Your task to perform on an android device: Open the phone app and click the voicemail tab. Image 0: 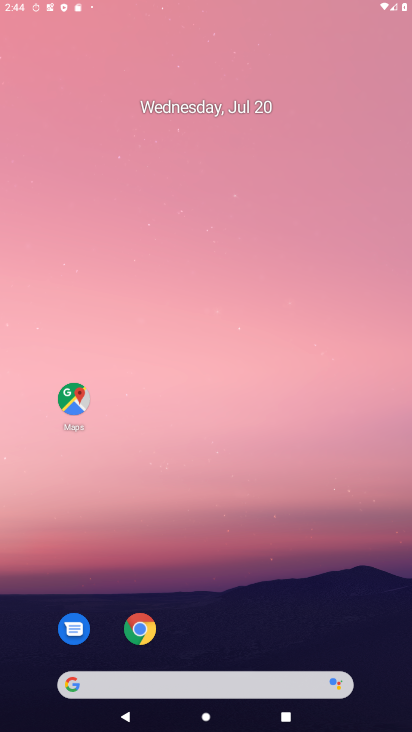
Step 0: press home button
Your task to perform on an android device: Open the phone app and click the voicemail tab. Image 1: 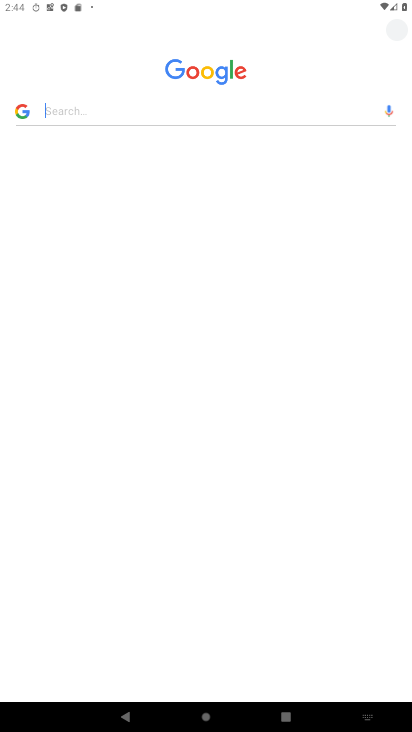
Step 1: drag from (243, 163) to (250, 30)
Your task to perform on an android device: Open the phone app and click the voicemail tab. Image 2: 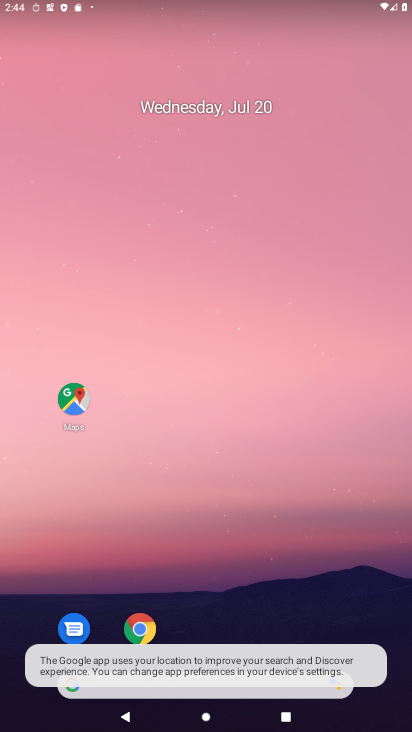
Step 2: drag from (217, 626) to (242, 63)
Your task to perform on an android device: Open the phone app and click the voicemail tab. Image 3: 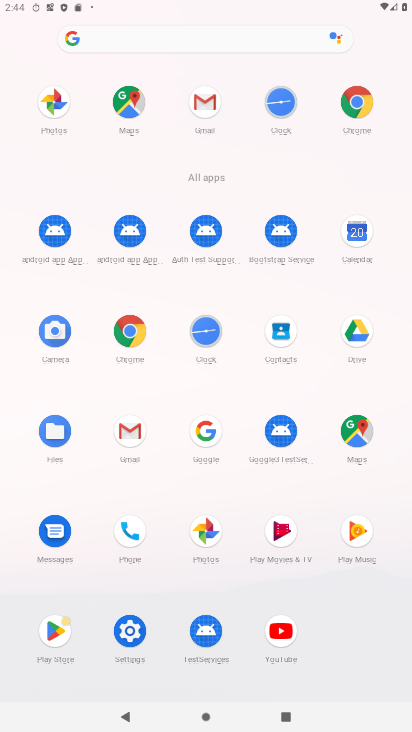
Step 3: click (132, 521)
Your task to perform on an android device: Open the phone app and click the voicemail tab. Image 4: 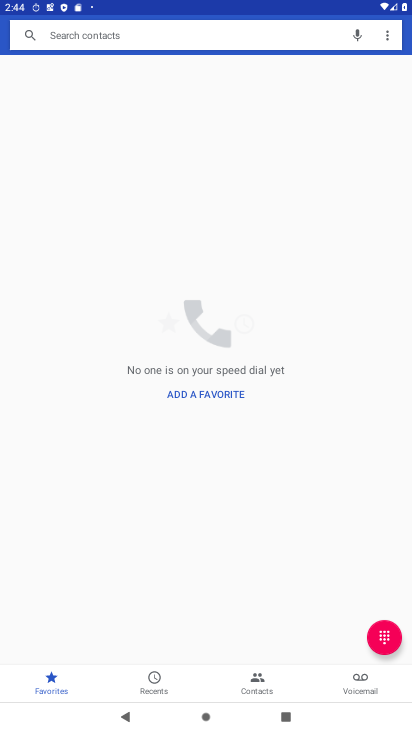
Step 4: click (354, 674)
Your task to perform on an android device: Open the phone app and click the voicemail tab. Image 5: 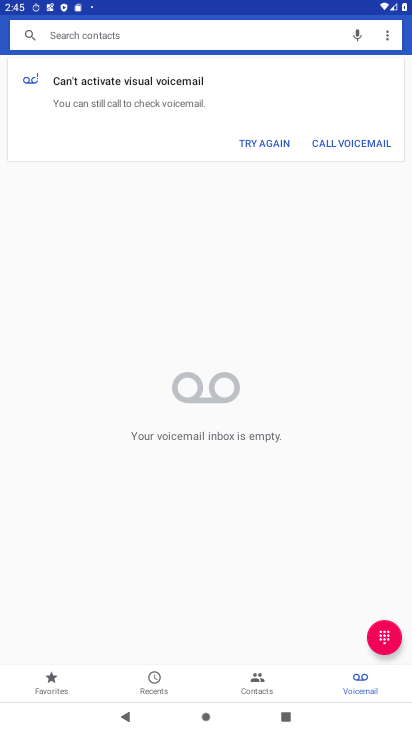
Step 5: task complete